Your task to perform on an android device: refresh tabs in the chrome app Image 0: 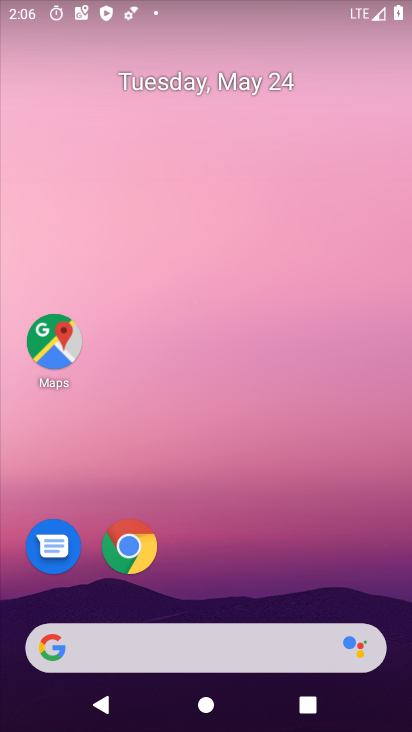
Step 0: click (122, 547)
Your task to perform on an android device: refresh tabs in the chrome app Image 1: 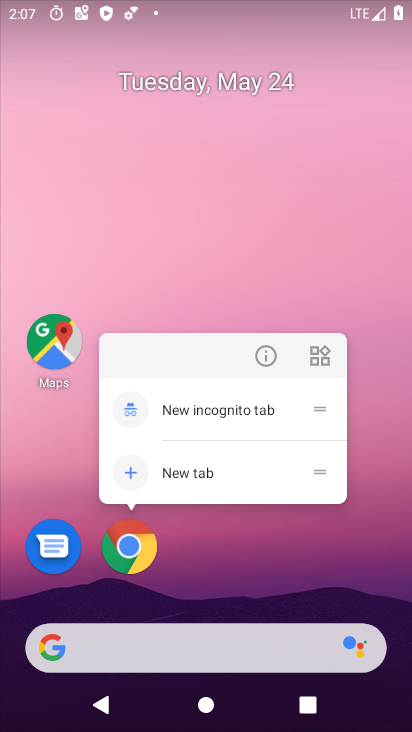
Step 1: click (144, 560)
Your task to perform on an android device: refresh tabs in the chrome app Image 2: 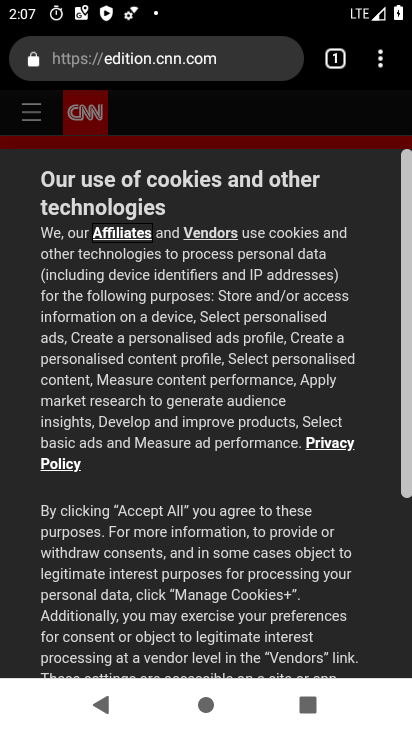
Step 2: click (144, 560)
Your task to perform on an android device: refresh tabs in the chrome app Image 3: 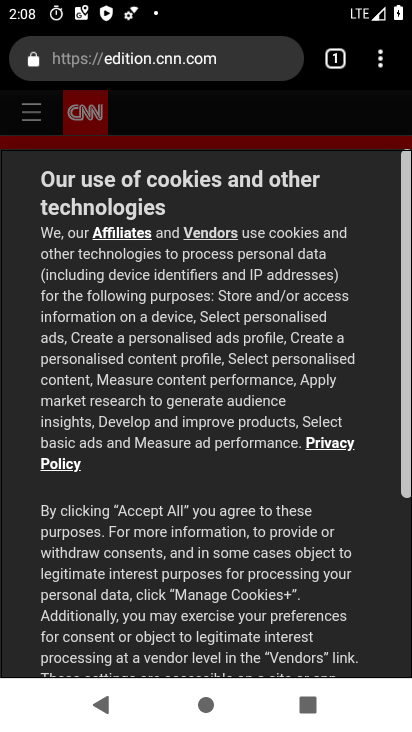
Step 3: click (382, 67)
Your task to perform on an android device: refresh tabs in the chrome app Image 4: 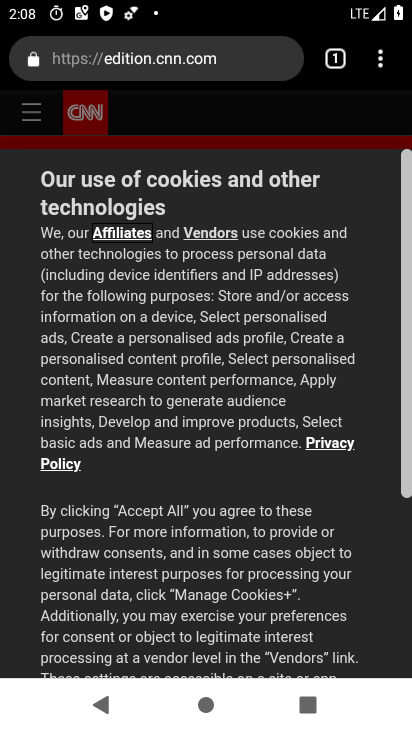
Step 4: task complete